Your task to perform on an android device: Is it going to rain today? Image 0: 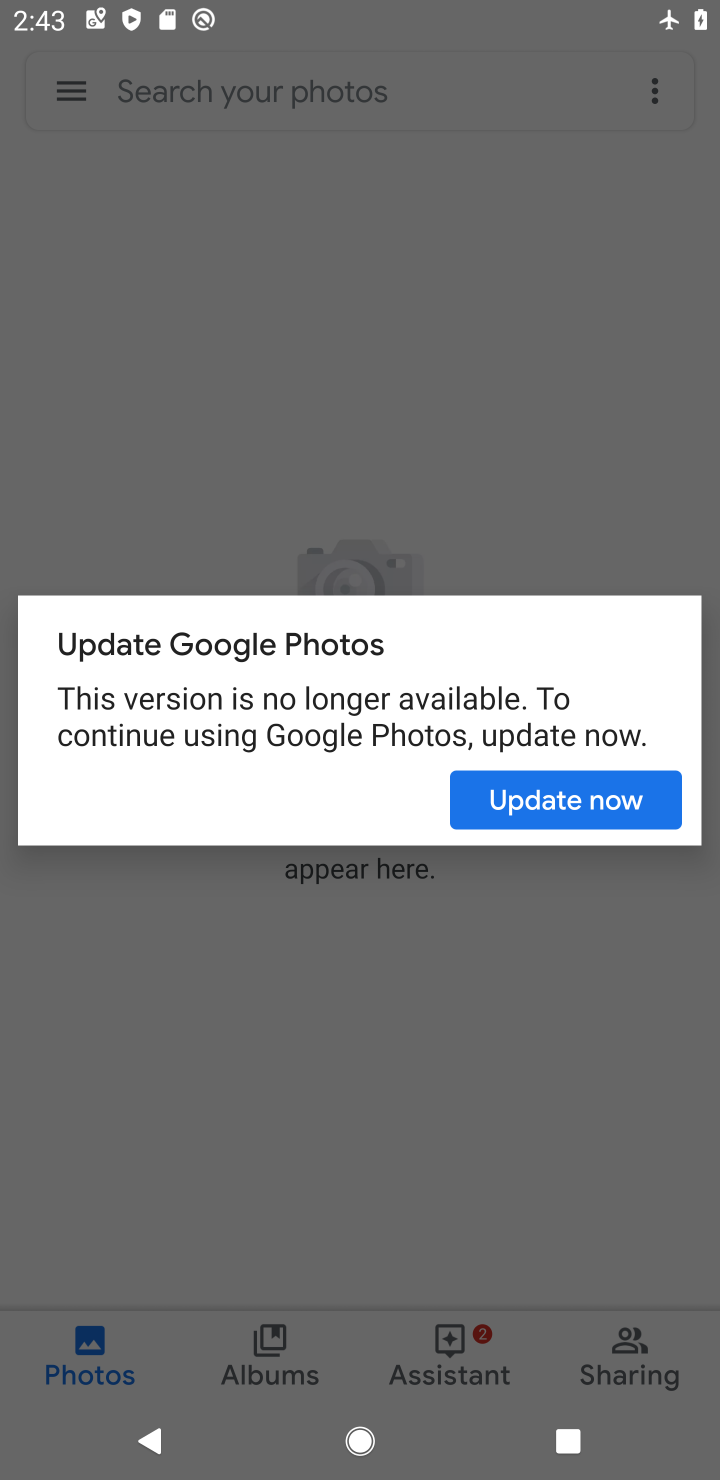
Step 0: press home button
Your task to perform on an android device: Is it going to rain today? Image 1: 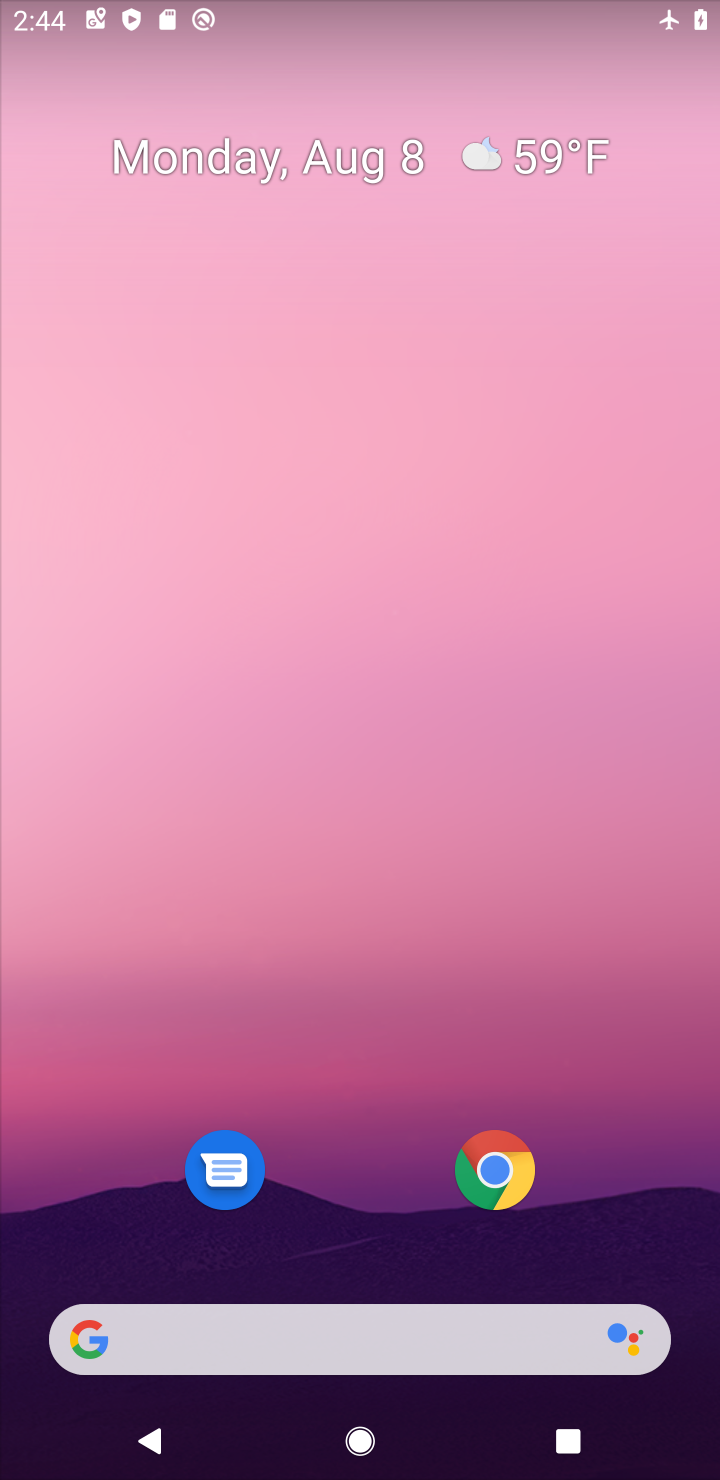
Step 1: drag from (341, 907) to (341, 461)
Your task to perform on an android device: Is it going to rain today? Image 2: 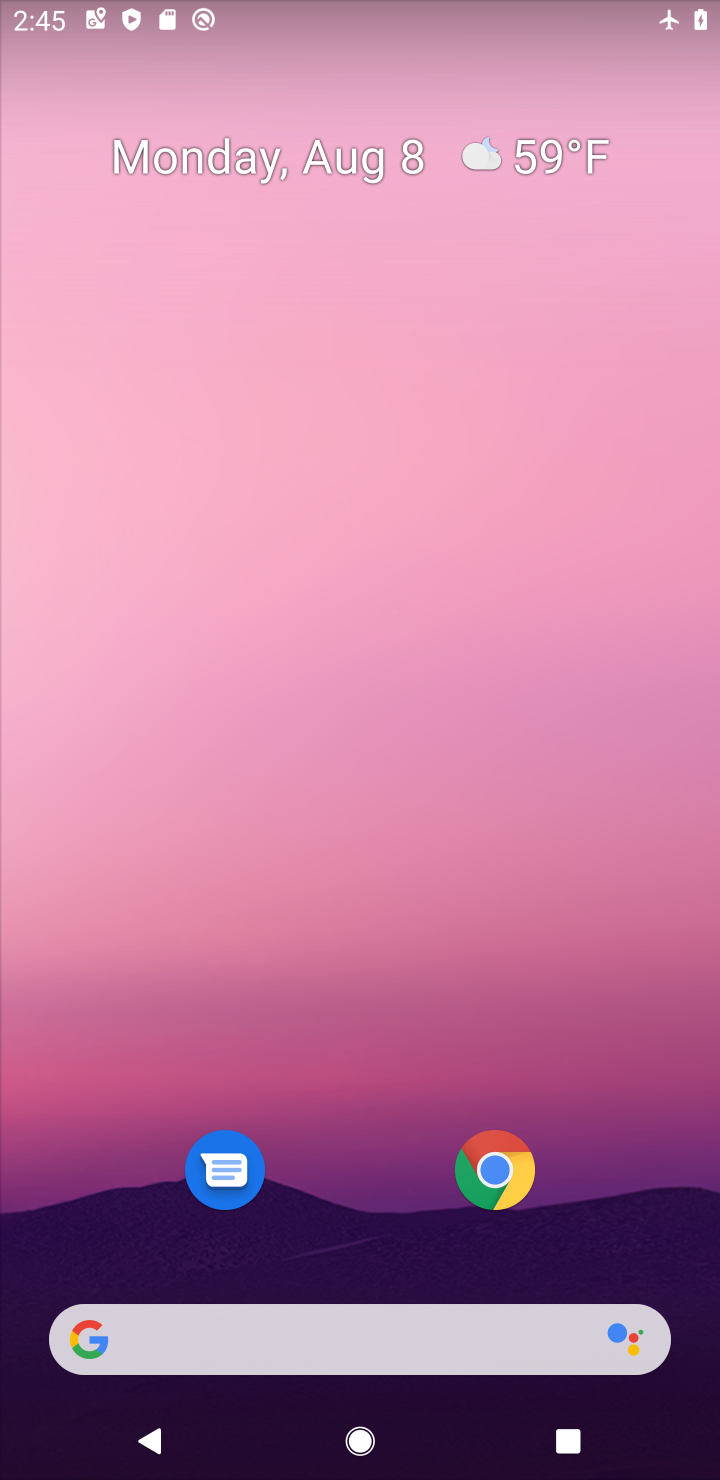
Step 2: drag from (336, 1141) to (353, 322)
Your task to perform on an android device: Is it going to rain today? Image 3: 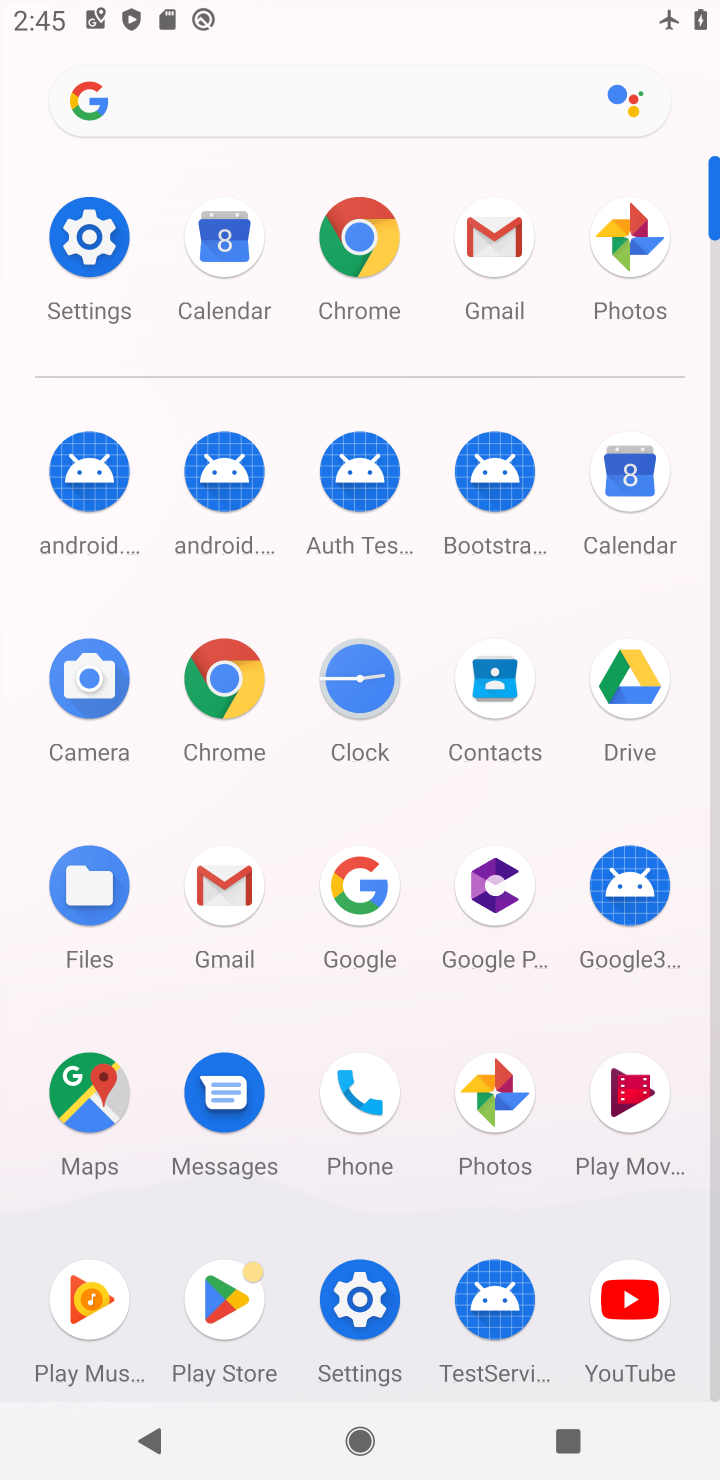
Step 3: click (375, 908)
Your task to perform on an android device: Is it going to rain today? Image 4: 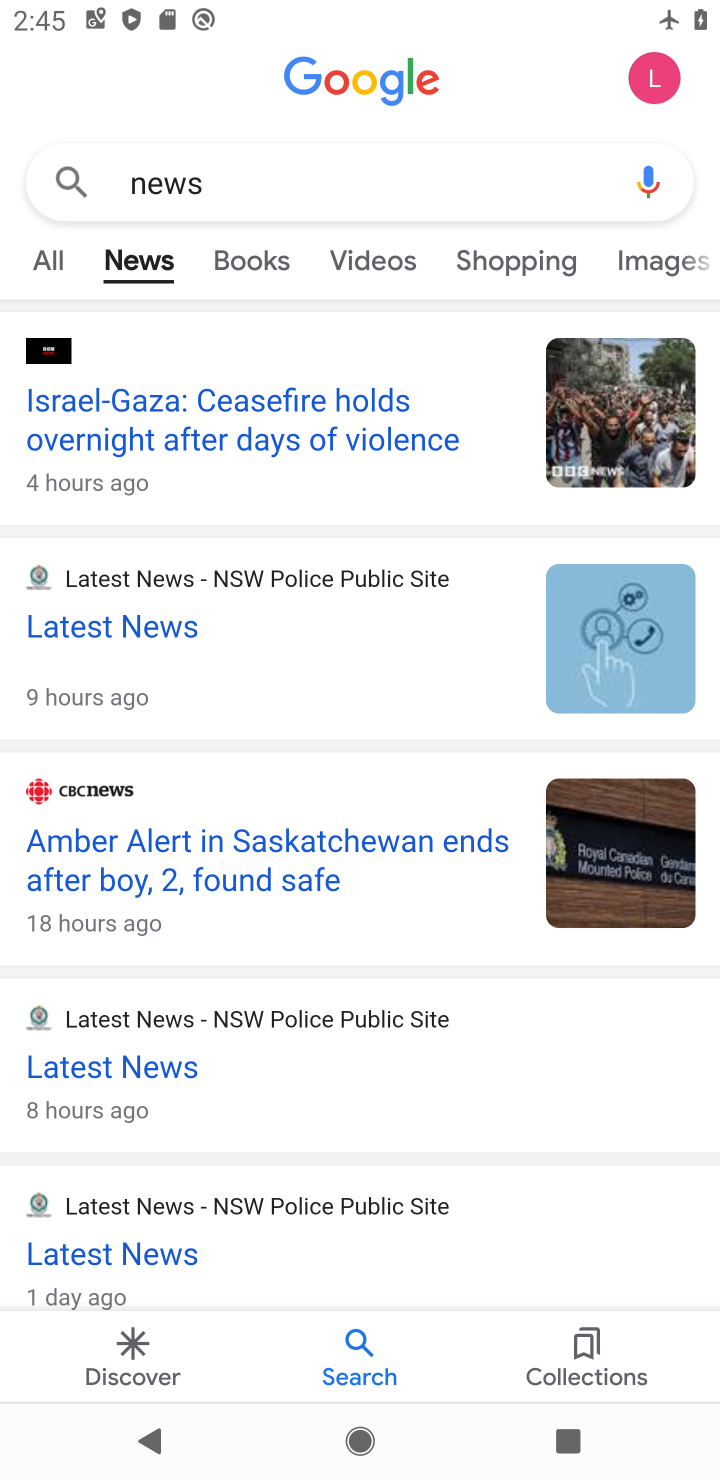
Step 4: click (258, 173)
Your task to perform on an android device: Is it going to rain today? Image 5: 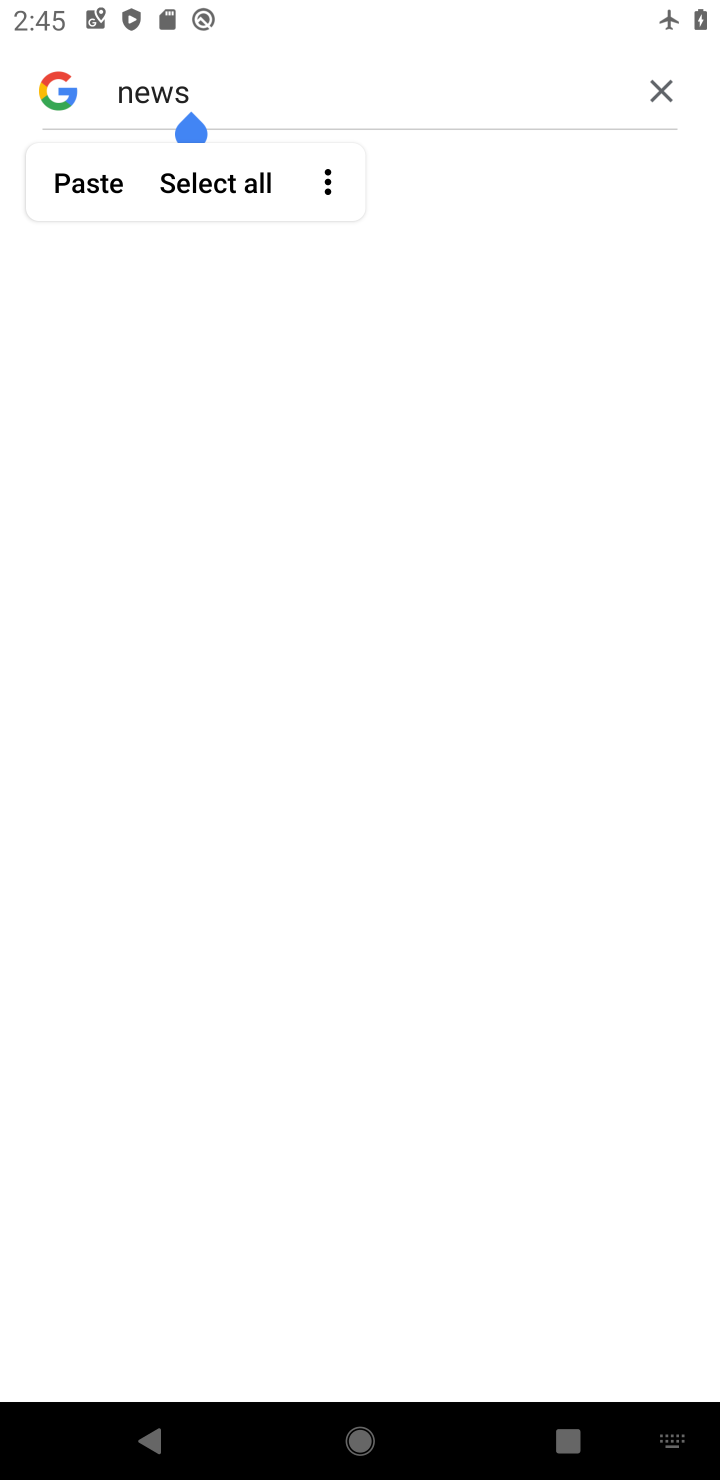
Step 5: click (666, 82)
Your task to perform on an android device: Is it going to rain today? Image 6: 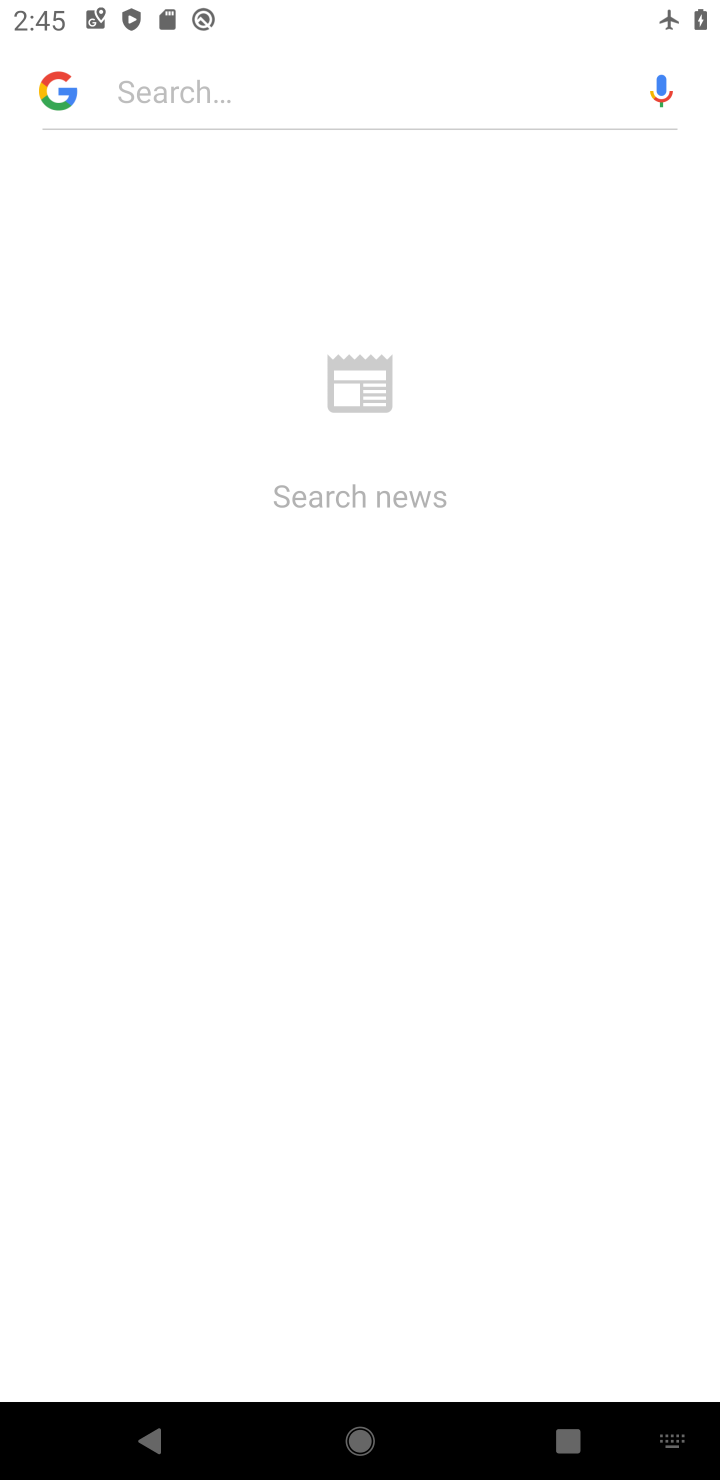
Step 6: click (157, 91)
Your task to perform on an android device: Is it going to rain today? Image 7: 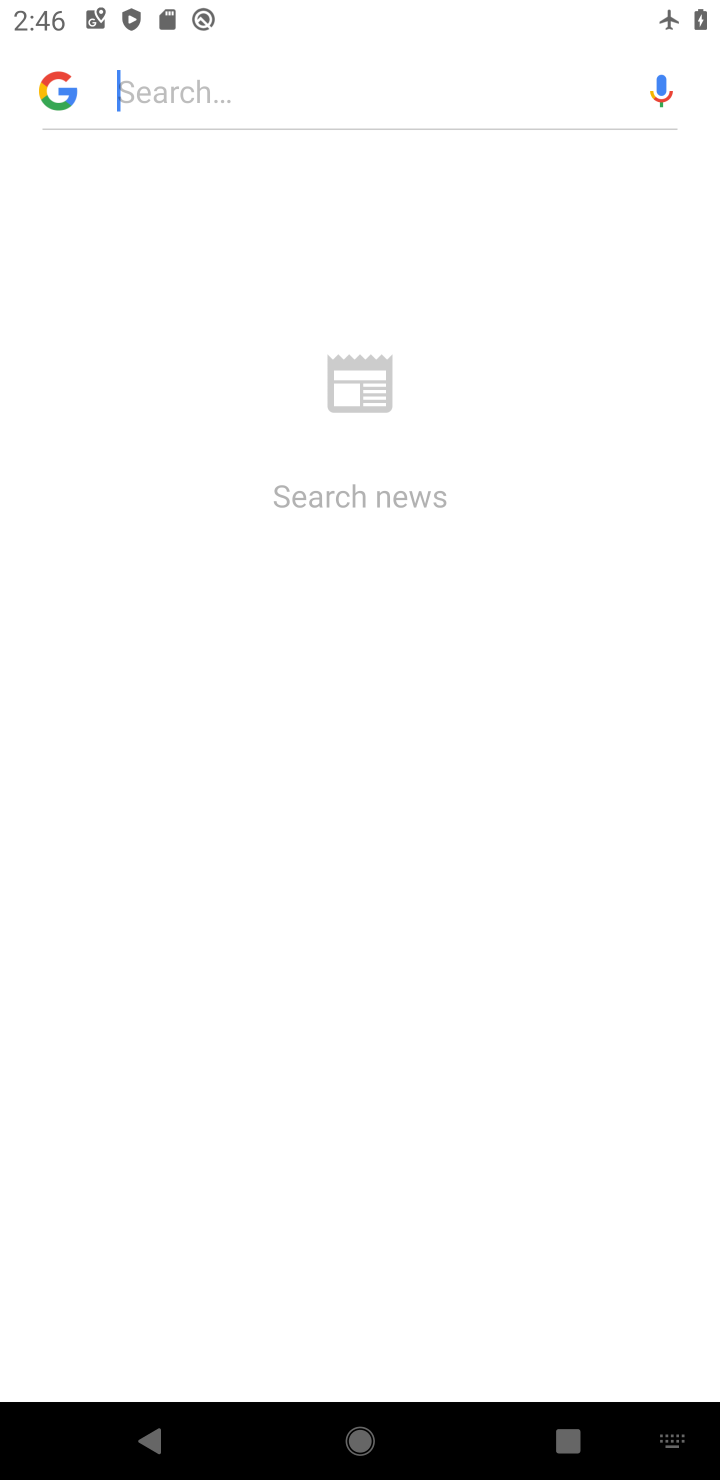
Step 7: type "weather"
Your task to perform on an android device: Is it going to rain today? Image 8: 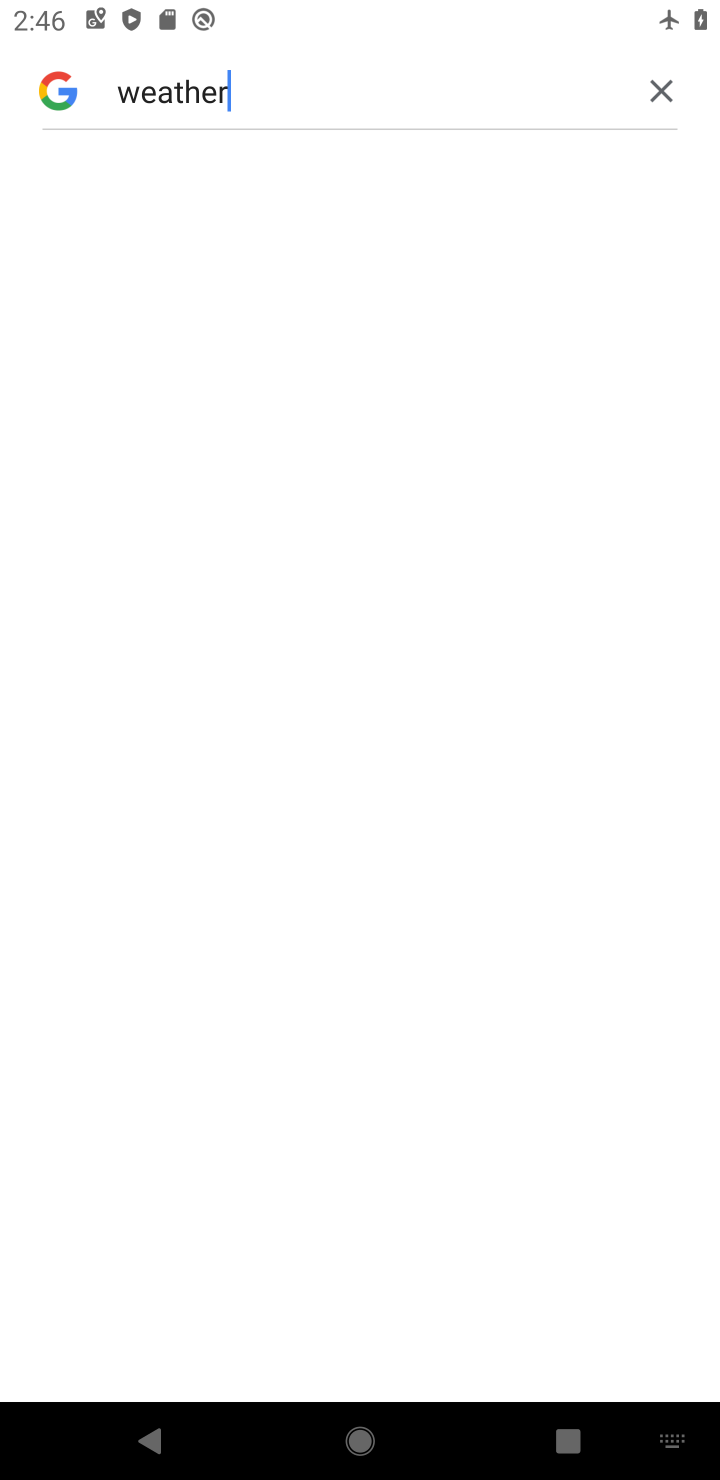
Step 8: task complete